Your task to perform on an android device: Search for pizza restaurants on Maps Image 0: 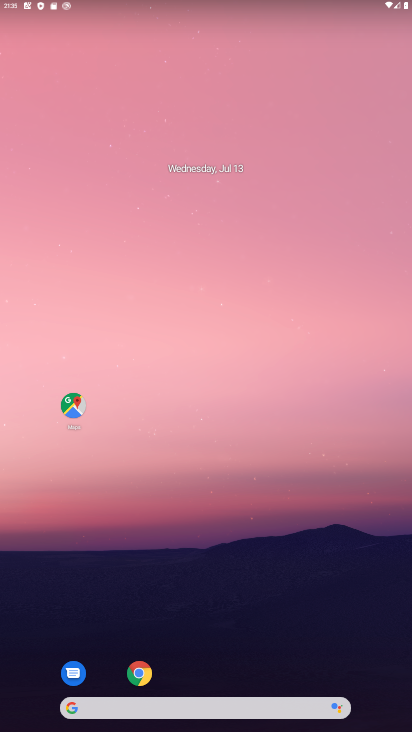
Step 0: click (60, 409)
Your task to perform on an android device: Search for pizza restaurants on Maps Image 1: 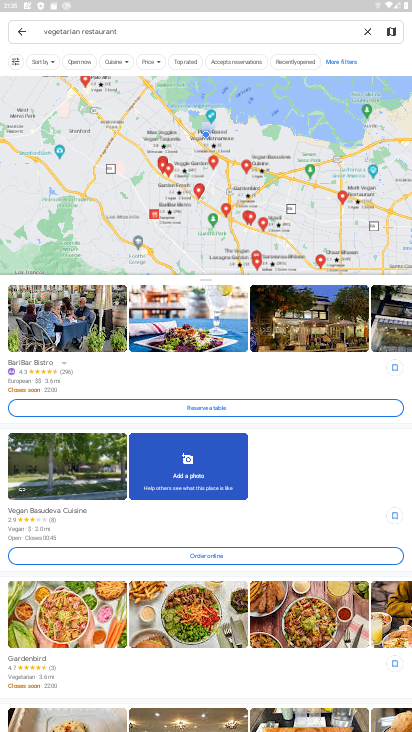
Step 1: click (173, 33)
Your task to perform on an android device: Search for pizza restaurants on Maps Image 2: 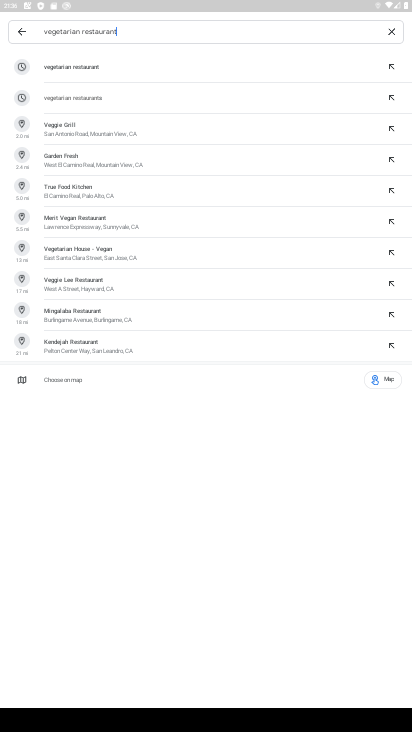
Step 2: click (387, 33)
Your task to perform on an android device: Search for pizza restaurants on Maps Image 3: 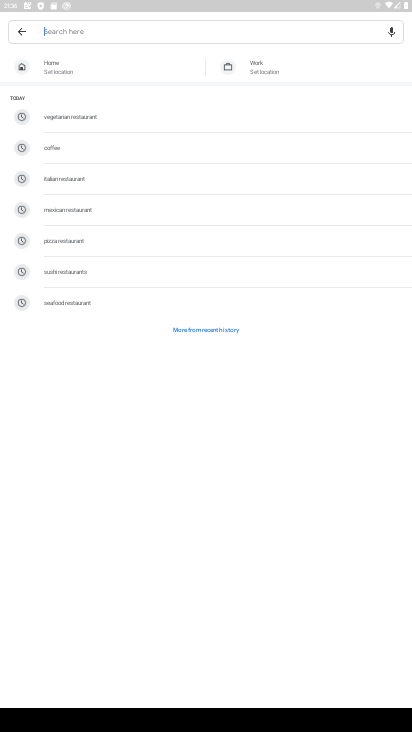
Step 3: click (90, 32)
Your task to perform on an android device: Search for pizza restaurants on Maps Image 4: 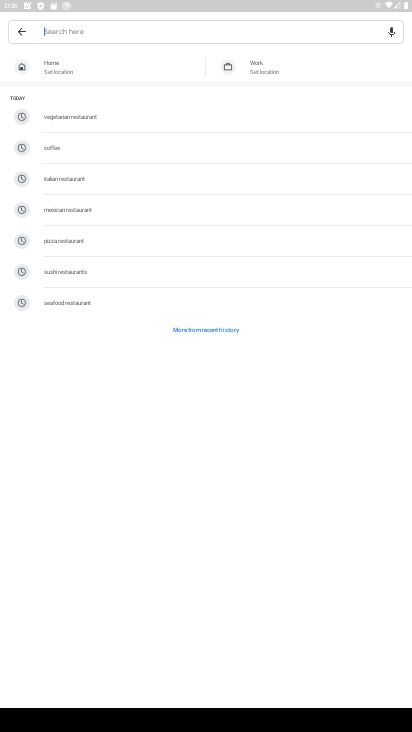
Step 4: type "pizza restaurants"
Your task to perform on an android device: Search for pizza restaurants on Maps Image 5: 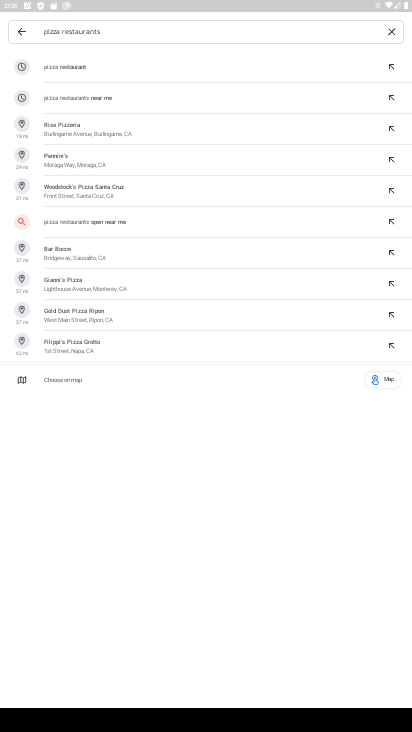
Step 5: click (79, 66)
Your task to perform on an android device: Search for pizza restaurants on Maps Image 6: 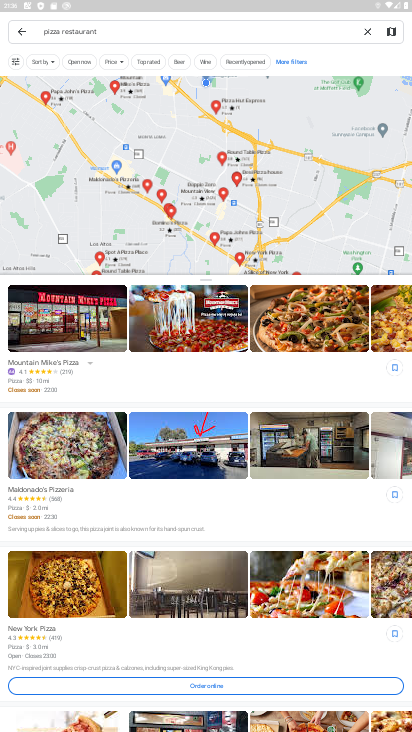
Step 6: task complete